Your task to perform on an android device: turn off location history Image 0: 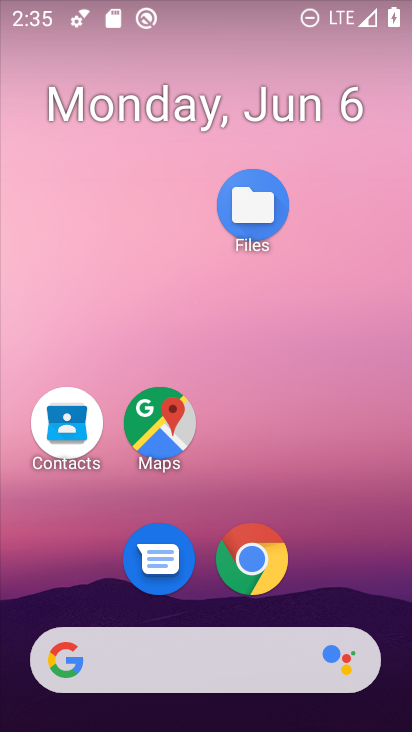
Step 0: drag from (249, 622) to (348, 14)
Your task to perform on an android device: turn off location history Image 1: 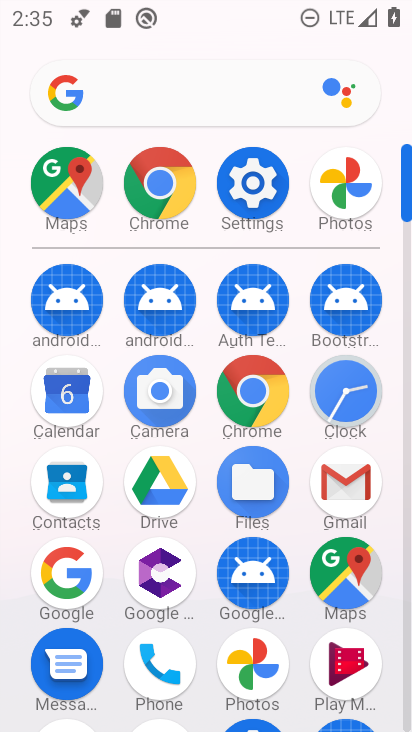
Step 1: click (254, 176)
Your task to perform on an android device: turn off location history Image 2: 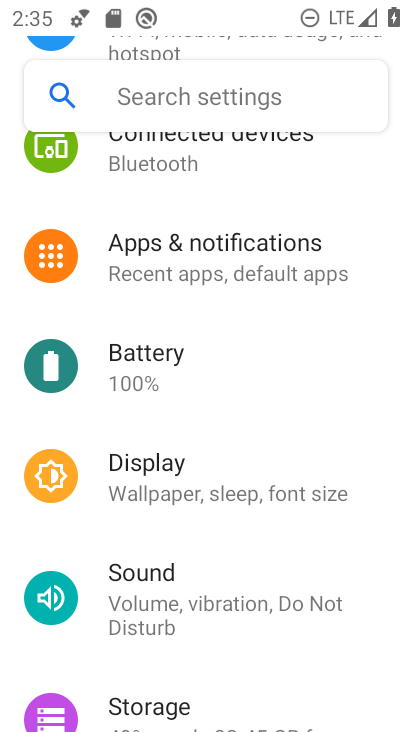
Step 2: drag from (233, 537) to (281, 177)
Your task to perform on an android device: turn off location history Image 3: 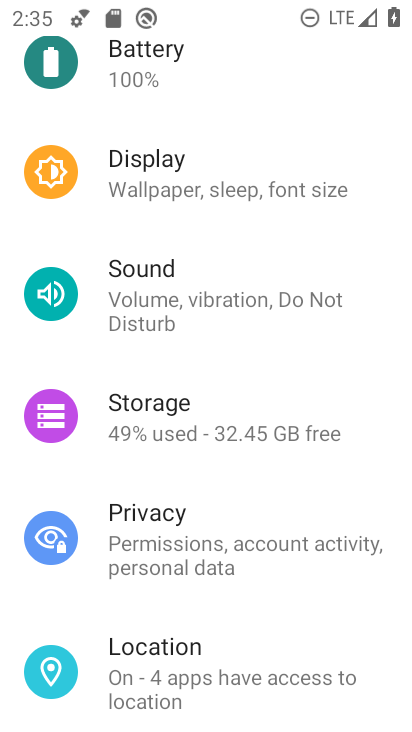
Step 3: click (222, 668)
Your task to perform on an android device: turn off location history Image 4: 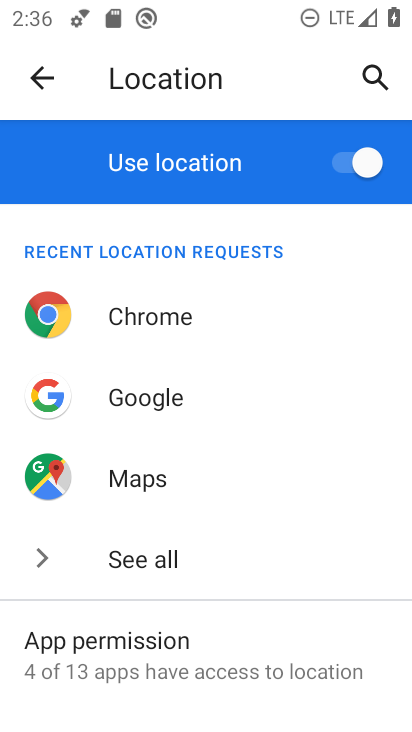
Step 4: drag from (177, 611) to (261, 260)
Your task to perform on an android device: turn off location history Image 5: 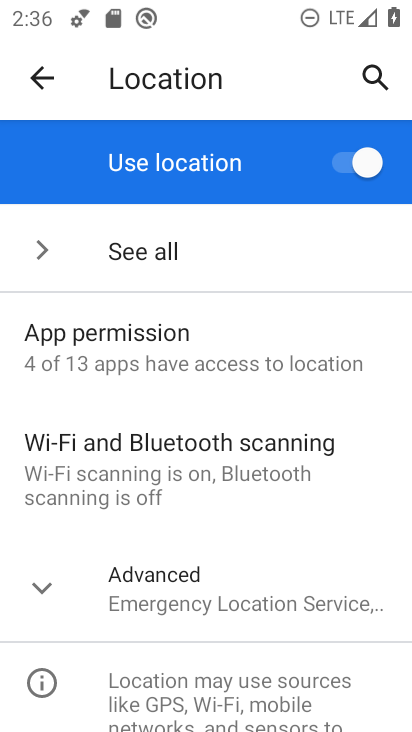
Step 5: click (216, 587)
Your task to perform on an android device: turn off location history Image 6: 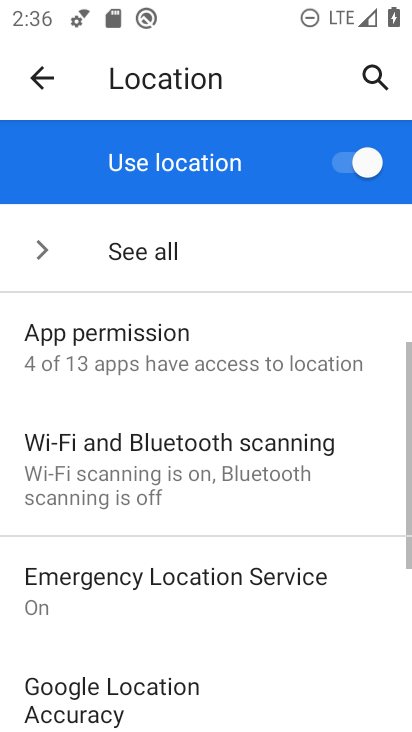
Step 6: drag from (204, 628) to (238, 231)
Your task to perform on an android device: turn off location history Image 7: 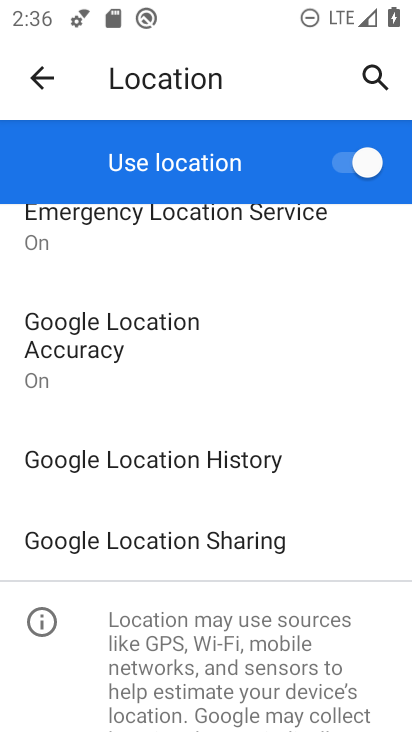
Step 7: click (248, 465)
Your task to perform on an android device: turn off location history Image 8: 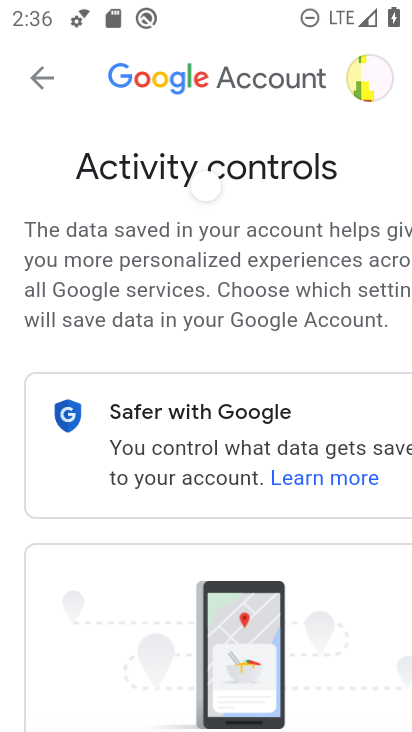
Step 8: drag from (244, 574) to (202, 78)
Your task to perform on an android device: turn off location history Image 9: 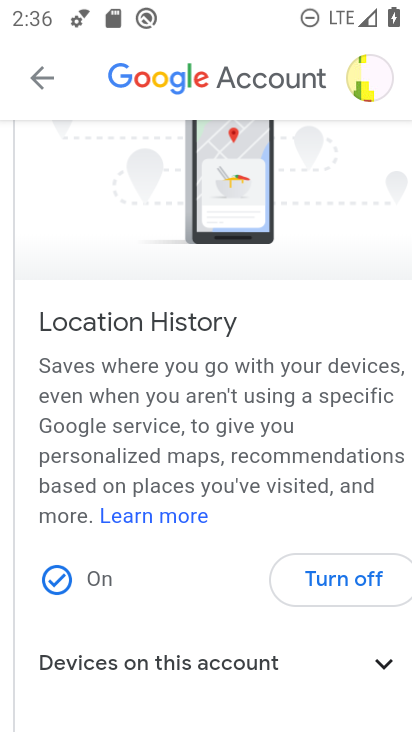
Step 9: click (342, 567)
Your task to perform on an android device: turn off location history Image 10: 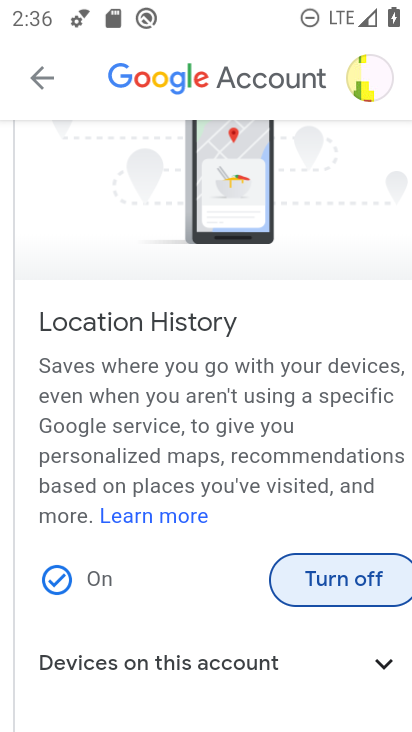
Step 10: click (331, 586)
Your task to perform on an android device: turn off location history Image 11: 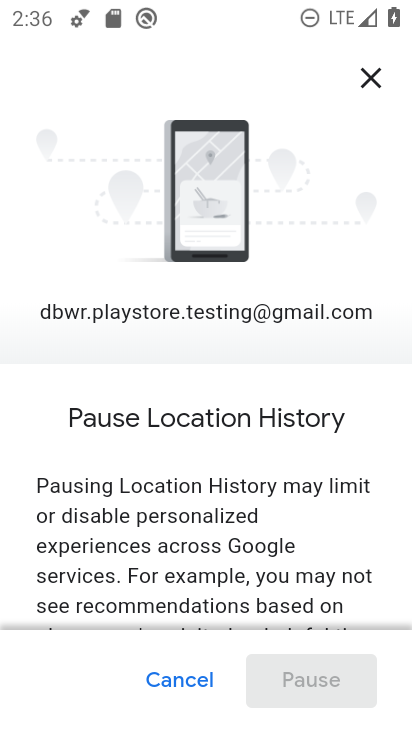
Step 11: drag from (305, 581) to (324, 17)
Your task to perform on an android device: turn off location history Image 12: 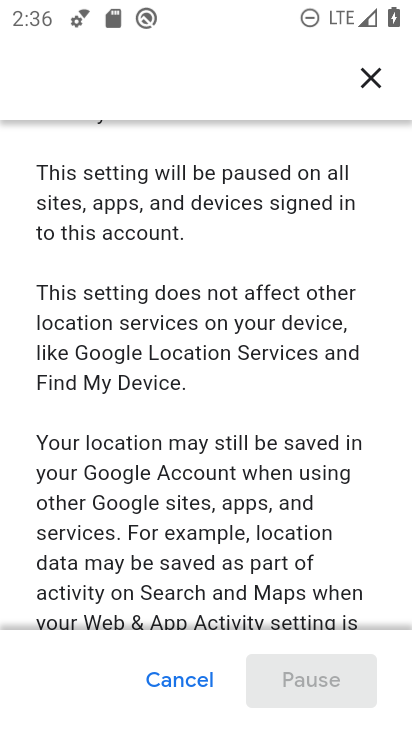
Step 12: drag from (275, 558) to (324, 51)
Your task to perform on an android device: turn off location history Image 13: 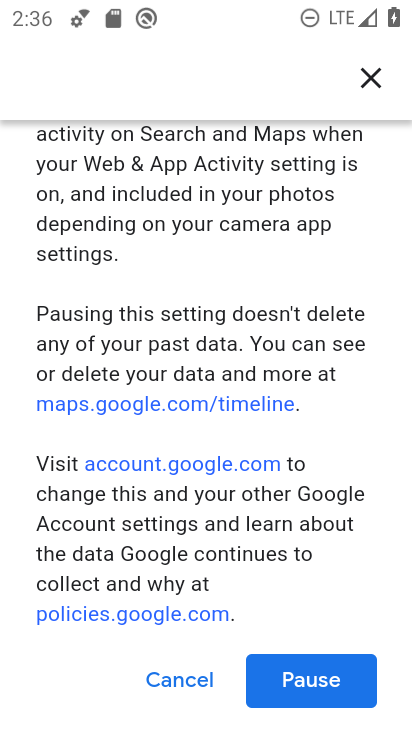
Step 13: click (335, 683)
Your task to perform on an android device: turn off location history Image 14: 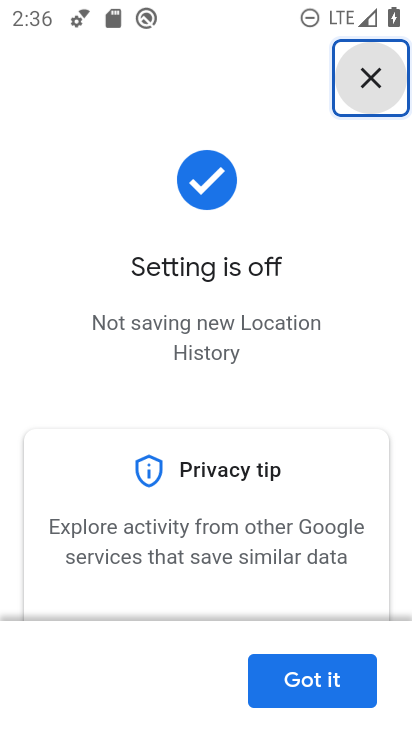
Step 14: click (320, 683)
Your task to perform on an android device: turn off location history Image 15: 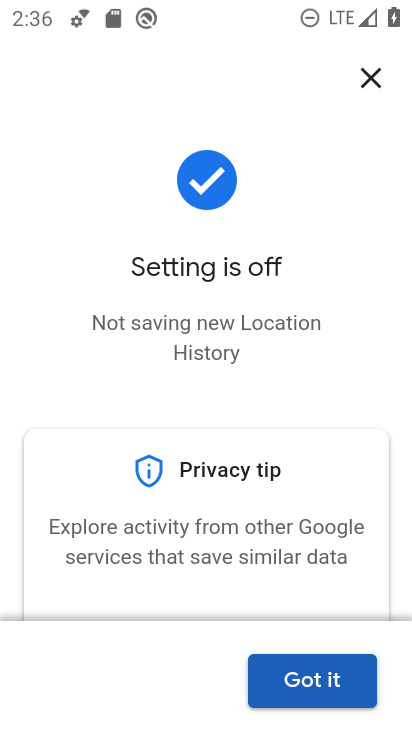
Step 15: task complete